Your task to perform on an android device: View the shopping cart on amazon. Add razer huntsman to the cart on amazon Image 0: 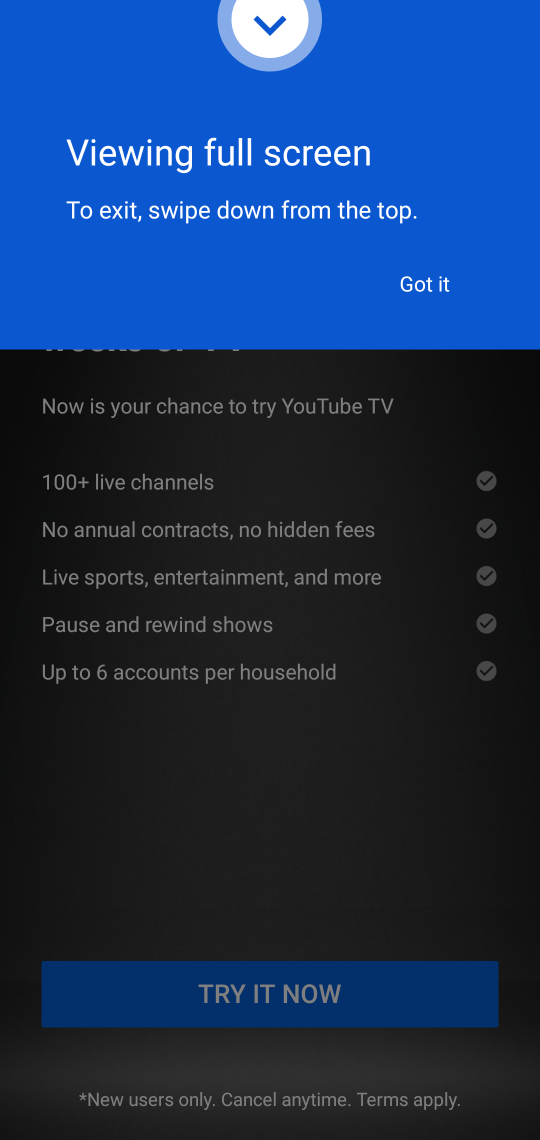
Step 0: press home button
Your task to perform on an android device: View the shopping cart on amazon. Add razer huntsman to the cart on amazon Image 1: 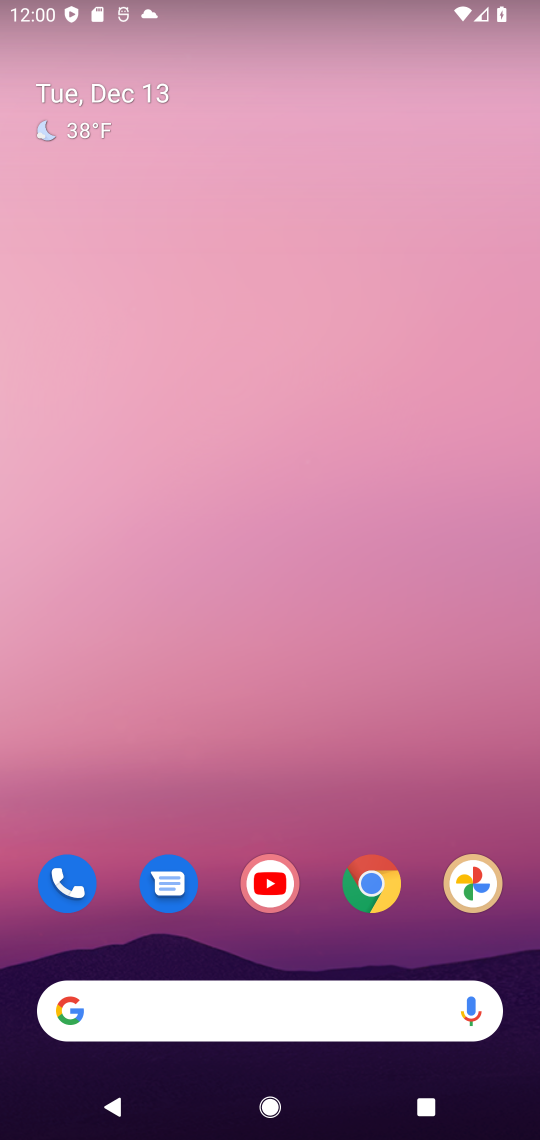
Step 1: click (267, 1030)
Your task to perform on an android device: View the shopping cart on amazon. Add razer huntsman to the cart on amazon Image 2: 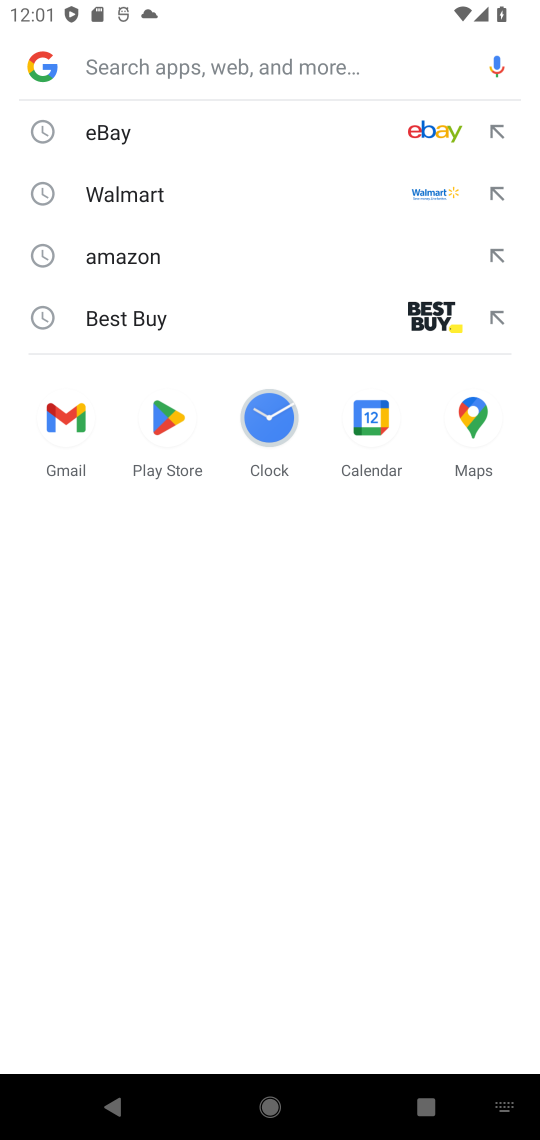
Step 2: click (144, 257)
Your task to perform on an android device: View the shopping cart on amazon. Add razer huntsman to the cart on amazon Image 3: 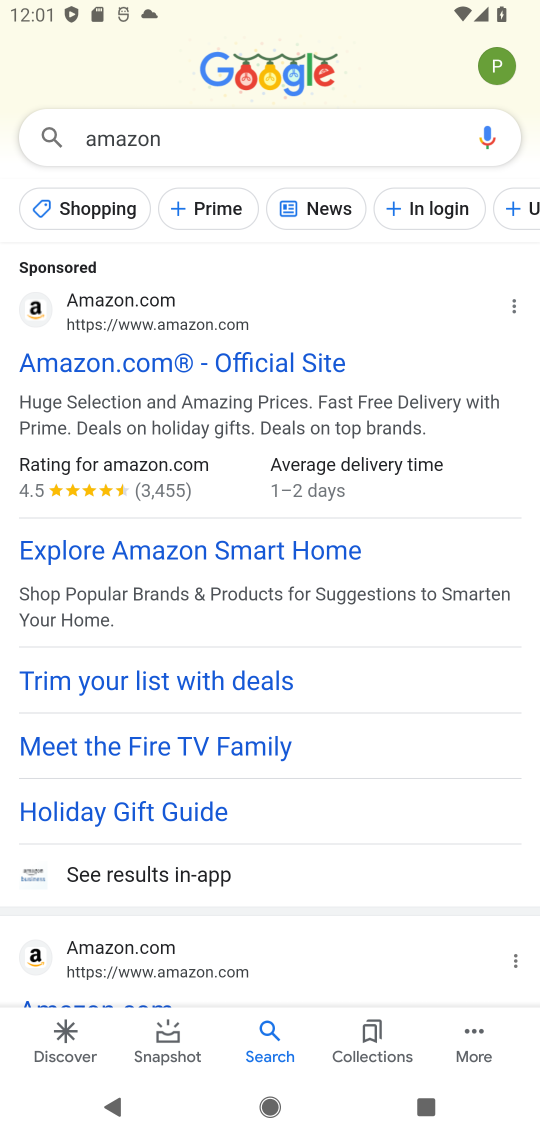
Step 3: drag from (208, 763) to (263, 297)
Your task to perform on an android device: View the shopping cart on amazon. Add razer huntsman to the cart on amazon Image 4: 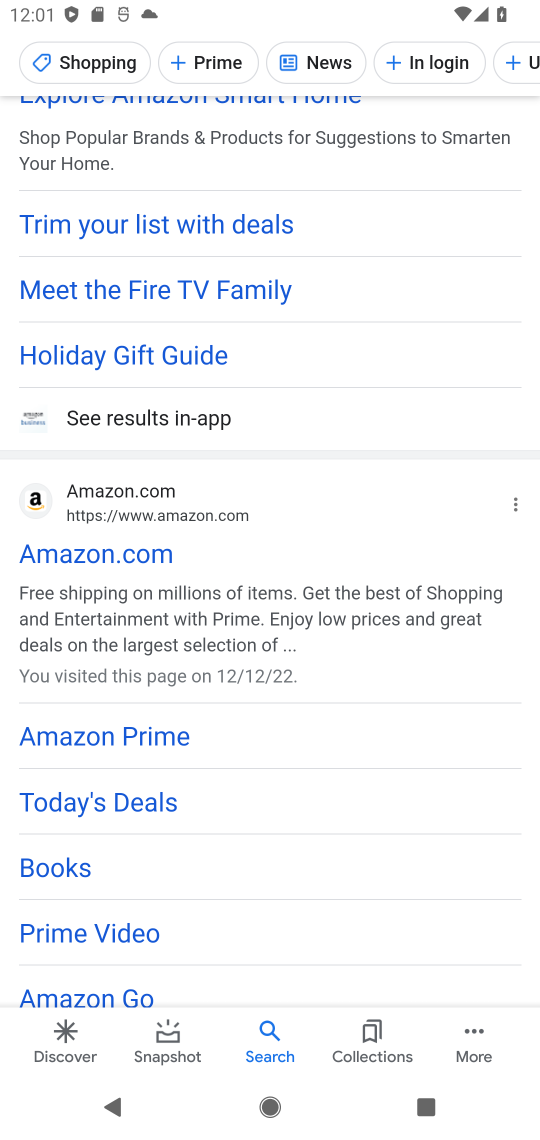
Step 4: click (81, 563)
Your task to perform on an android device: View the shopping cart on amazon. Add razer huntsman to the cart on amazon Image 5: 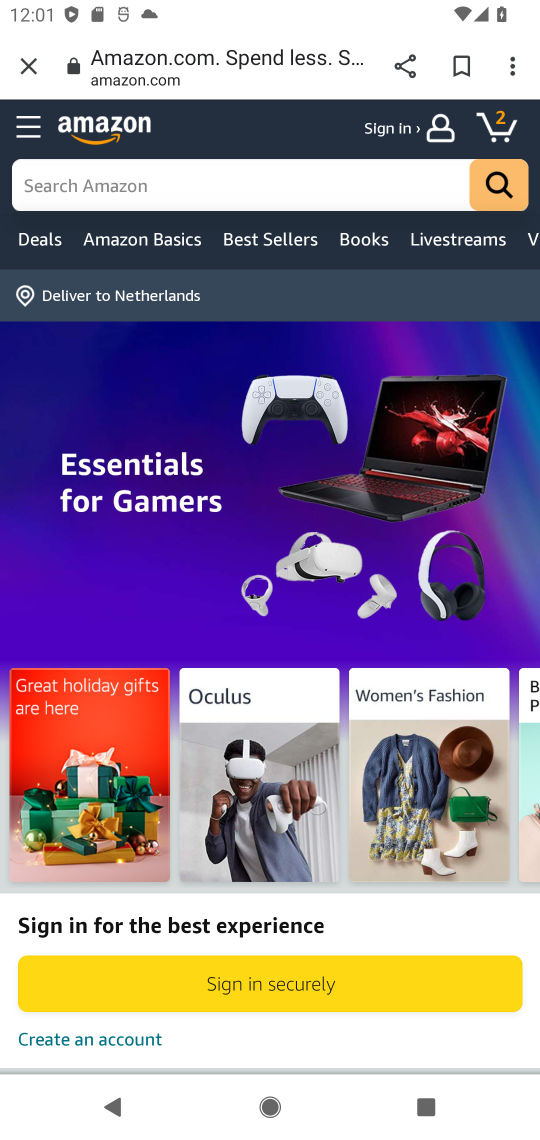
Step 5: click (494, 138)
Your task to perform on an android device: View the shopping cart on amazon. Add razer huntsman to the cart on amazon Image 6: 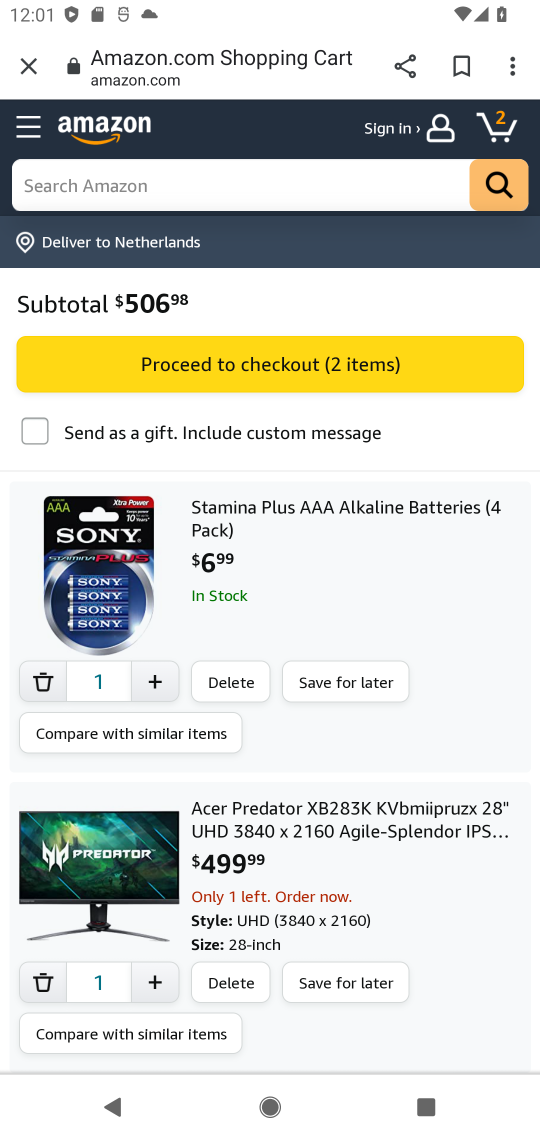
Step 6: click (245, 183)
Your task to perform on an android device: View the shopping cart on amazon. Add razer huntsman to the cart on amazon Image 7: 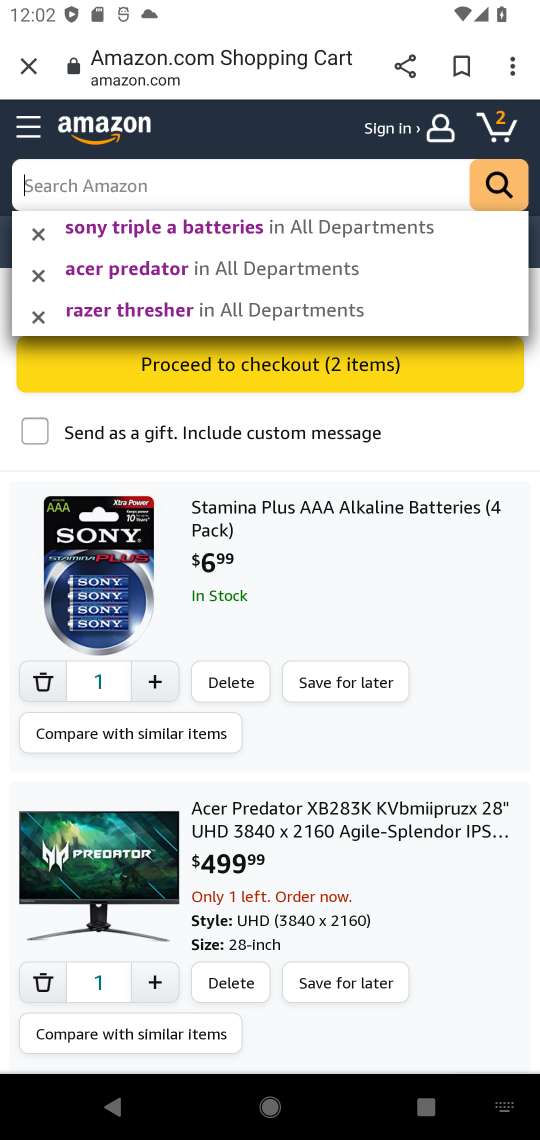
Step 7: type "razer huntsman"
Your task to perform on an android device: View the shopping cart on amazon. Add razer huntsman to the cart on amazon Image 8: 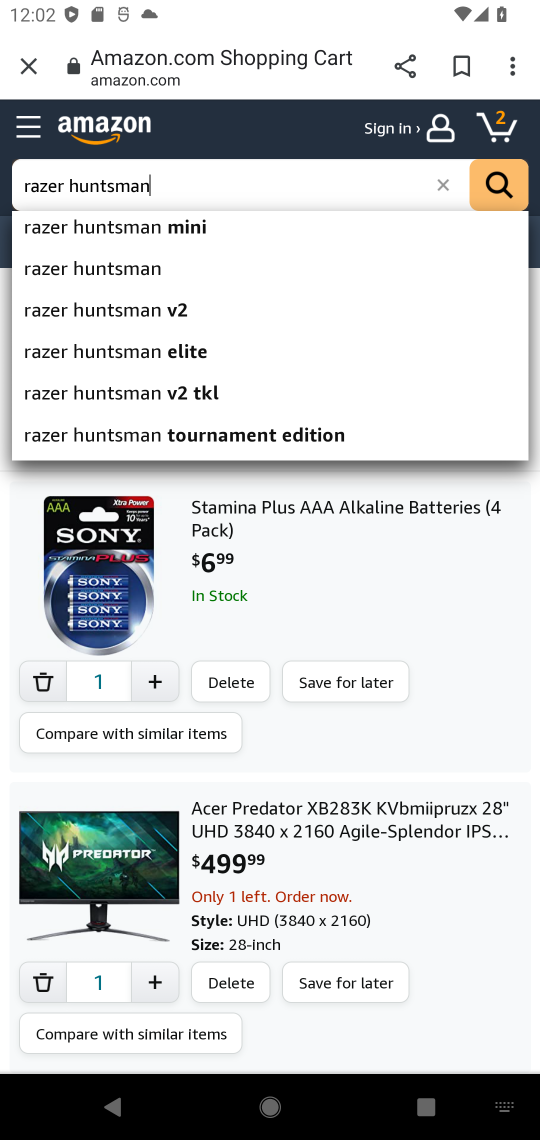
Step 8: click (137, 262)
Your task to perform on an android device: View the shopping cart on amazon. Add razer huntsman to the cart on amazon Image 9: 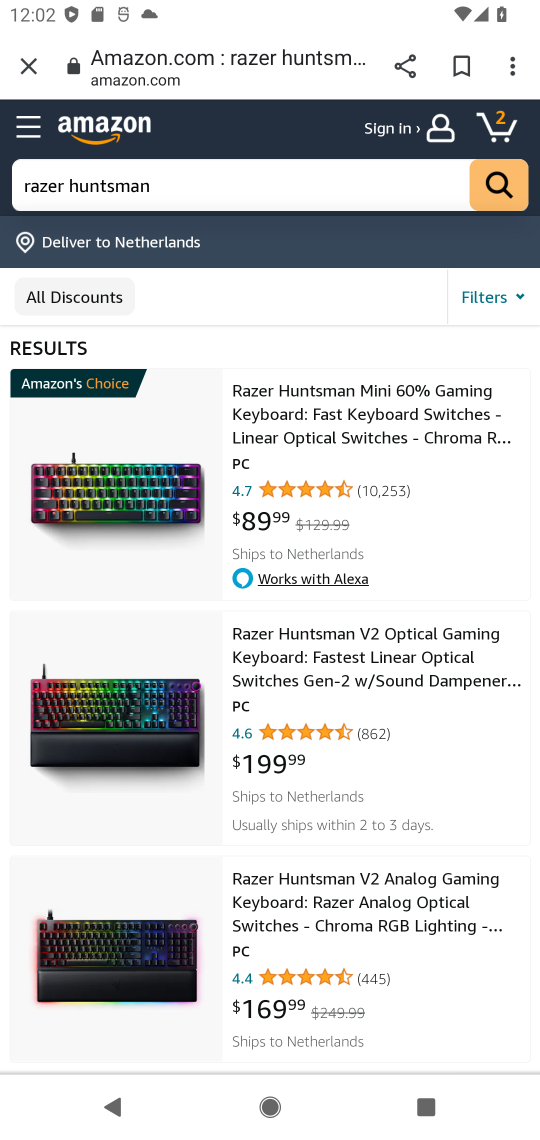
Step 9: click (257, 409)
Your task to perform on an android device: View the shopping cart on amazon. Add razer huntsman to the cart on amazon Image 10: 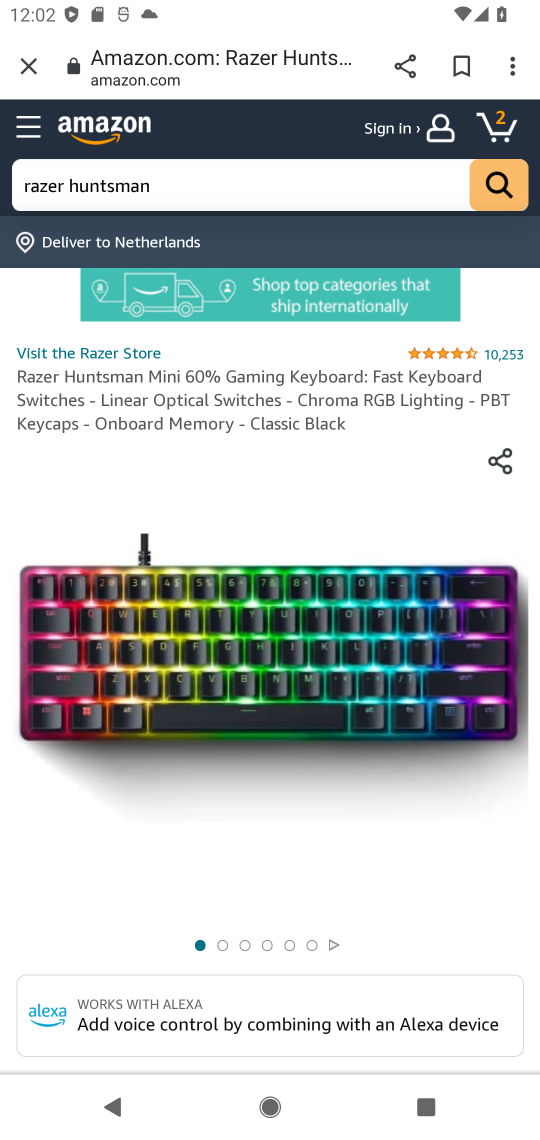
Step 10: drag from (300, 722) to (348, 513)
Your task to perform on an android device: View the shopping cart on amazon. Add razer huntsman to the cart on amazon Image 11: 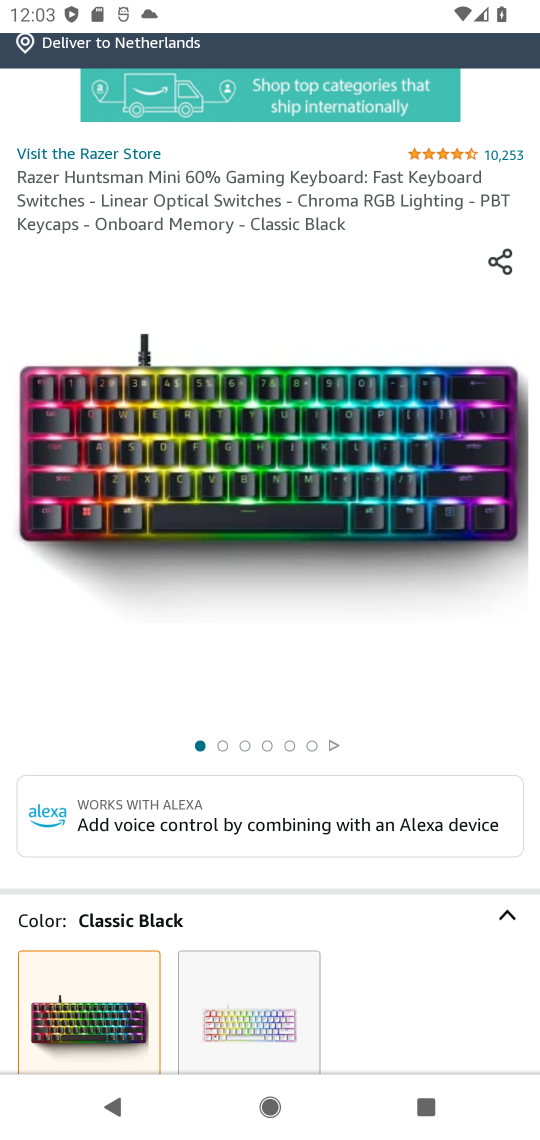
Step 11: click (367, 793)
Your task to perform on an android device: View the shopping cart on amazon. Add razer huntsman to the cart on amazon Image 12: 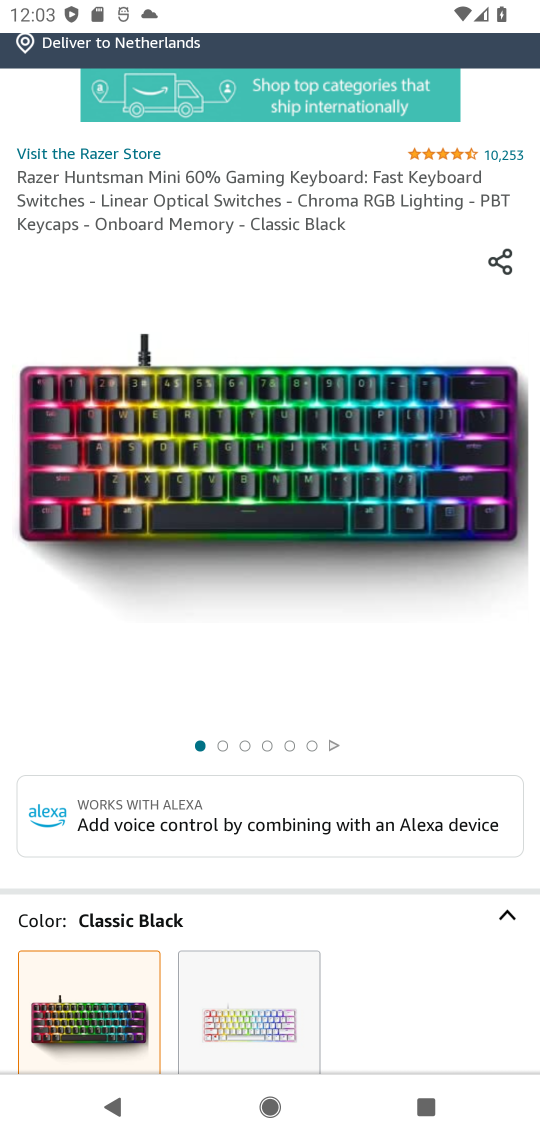
Step 12: drag from (400, 856) to (419, 717)
Your task to perform on an android device: View the shopping cart on amazon. Add razer huntsman to the cart on amazon Image 13: 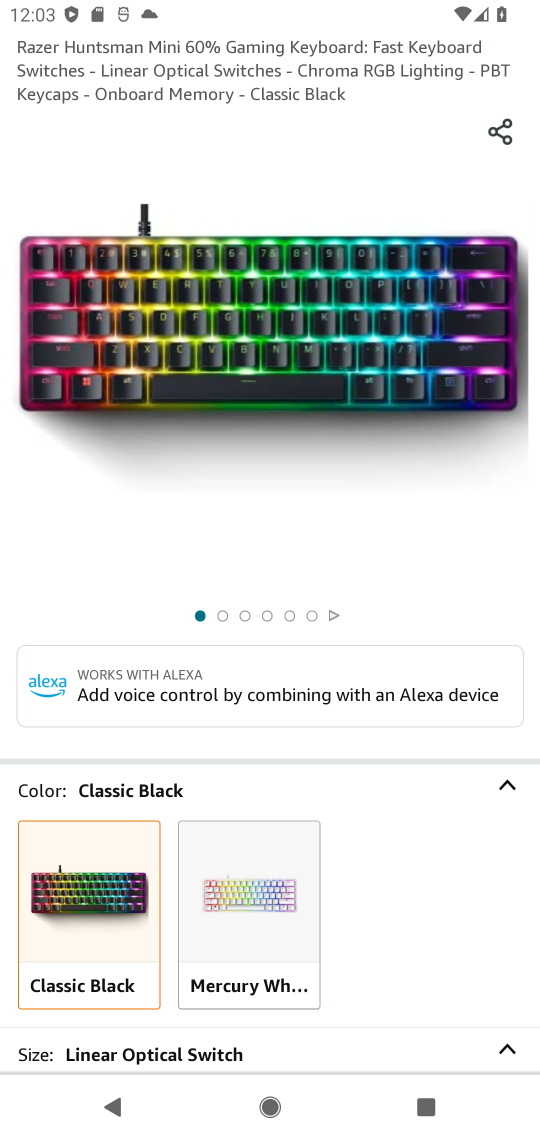
Step 13: drag from (424, 857) to (473, 617)
Your task to perform on an android device: View the shopping cart on amazon. Add razer huntsman to the cart on amazon Image 14: 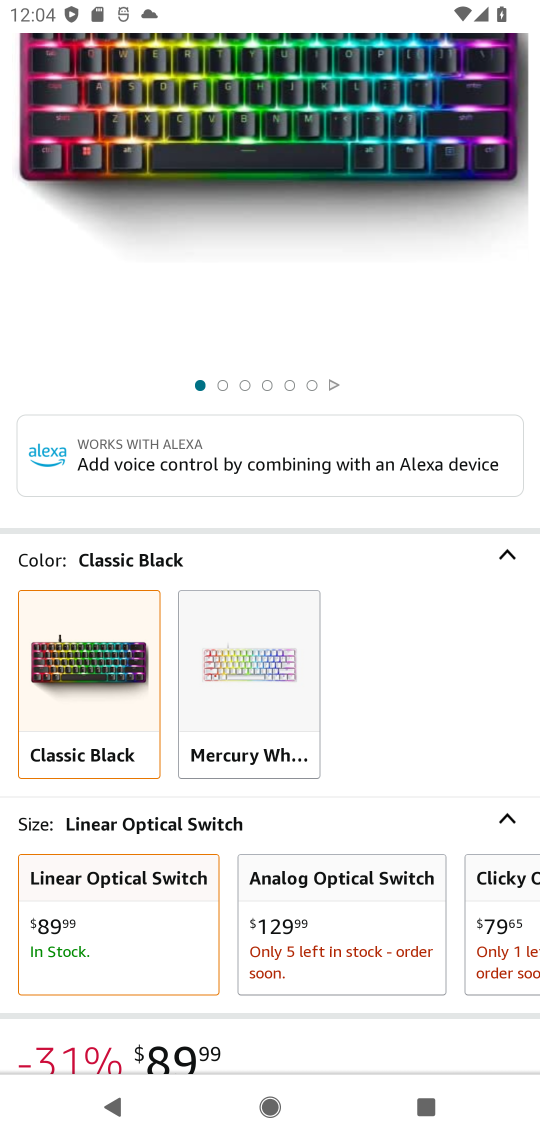
Step 14: drag from (473, 561) to (458, 261)
Your task to perform on an android device: View the shopping cart on amazon. Add razer huntsman to the cart on amazon Image 15: 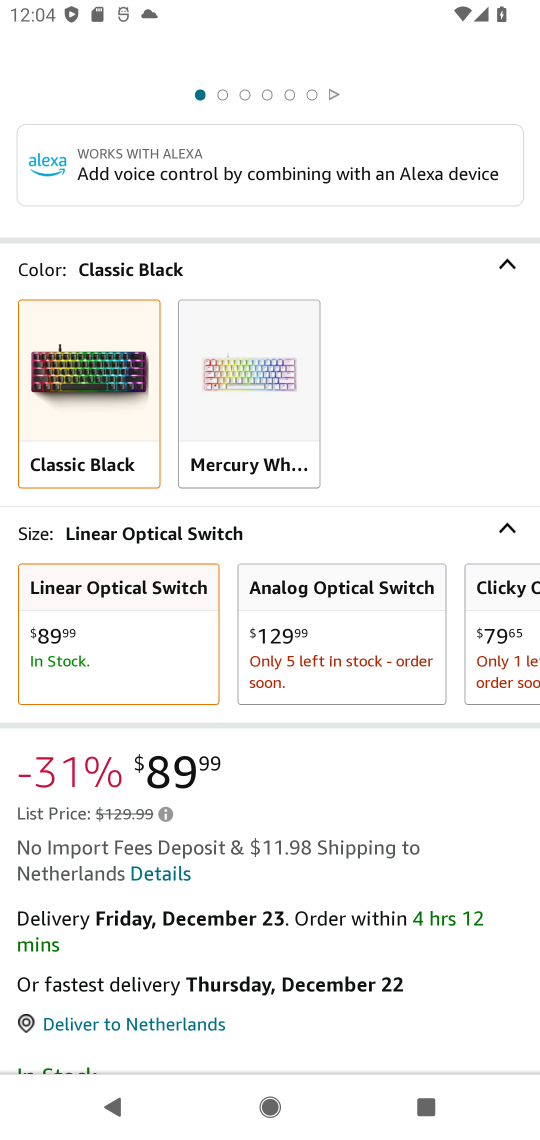
Step 15: drag from (267, 932) to (351, 340)
Your task to perform on an android device: View the shopping cart on amazon. Add razer huntsman to the cart on amazon Image 16: 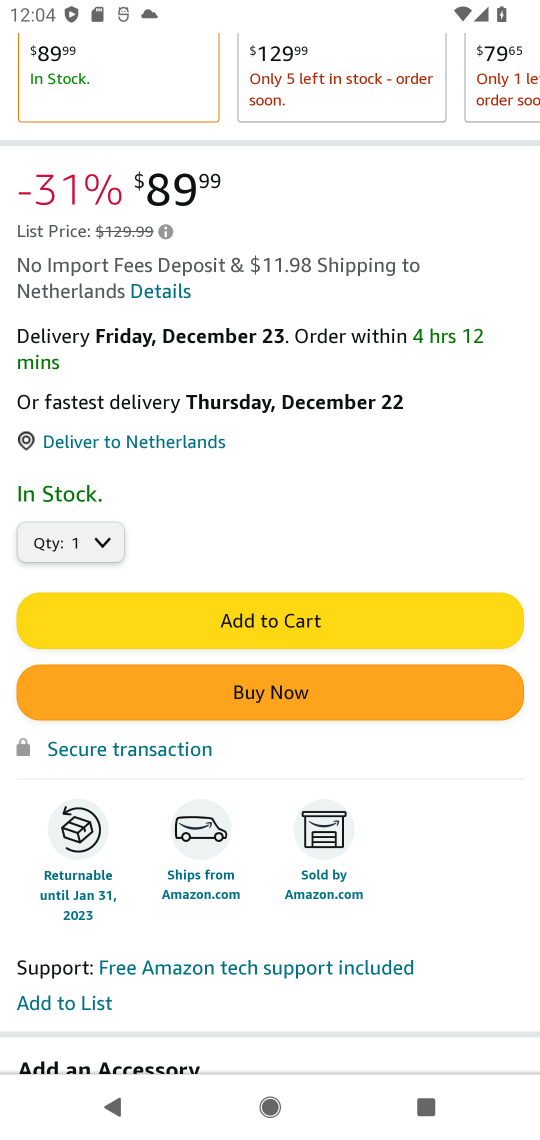
Step 16: drag from (396, 356) to (386, 749)
Your task to perform on an android device: View the shopping cart on amazon. Add razer huntsman to the cart on amazon Image 17: 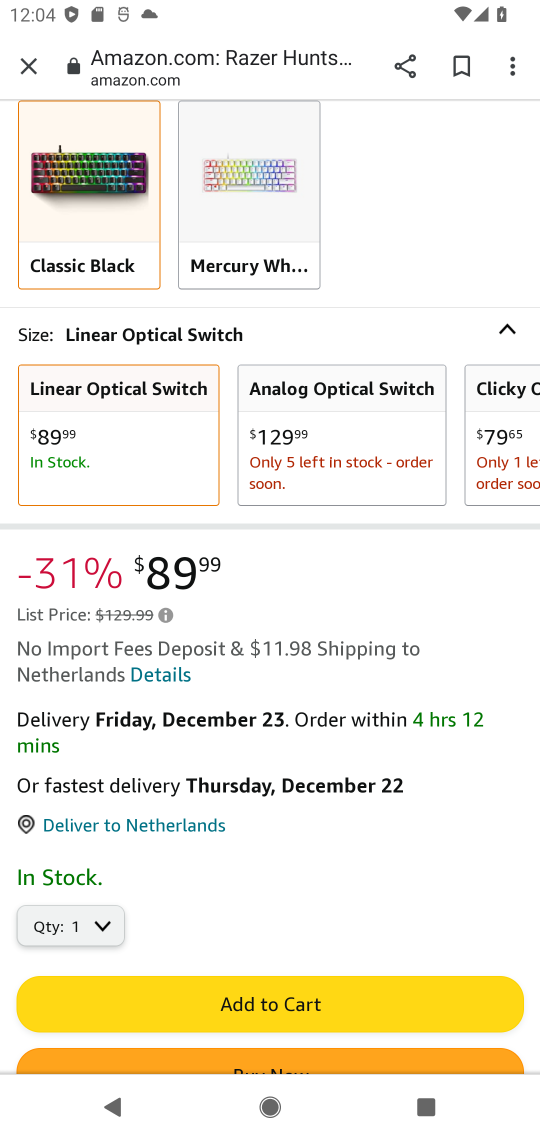
Step 17: drag from (394, 409) to (380, 698)
Your task to perform on an android device: View the shopping cart on amazon. Add razer huntsman to the cart on amazon Image 18: 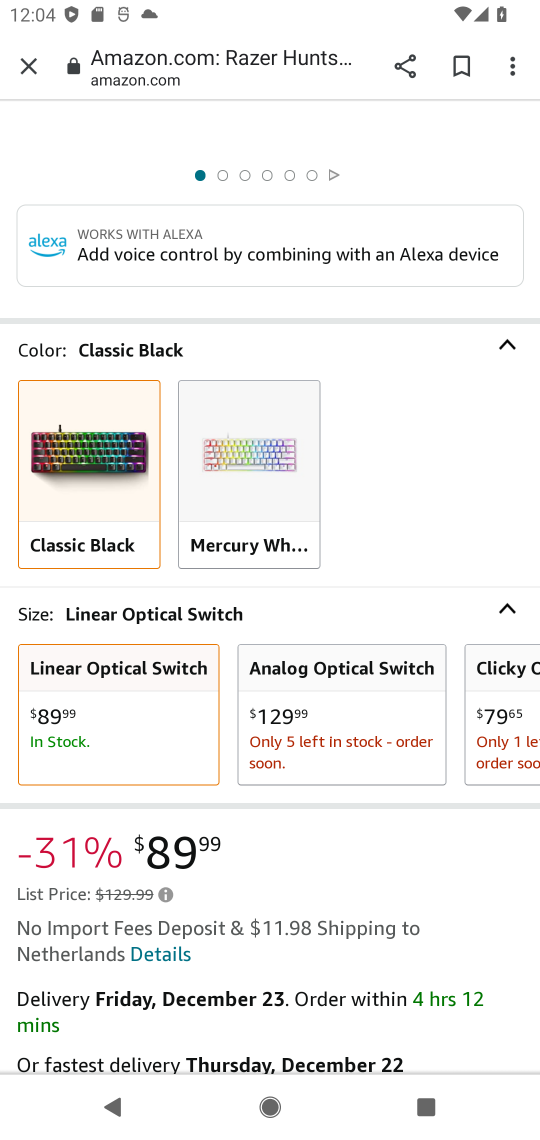
Step 18: drag from (450, 445) to (422, 712)
Your task to perform on an android device: View the shopping cart on amazon. Add razer huntsman to the cart on amazon Image 19: 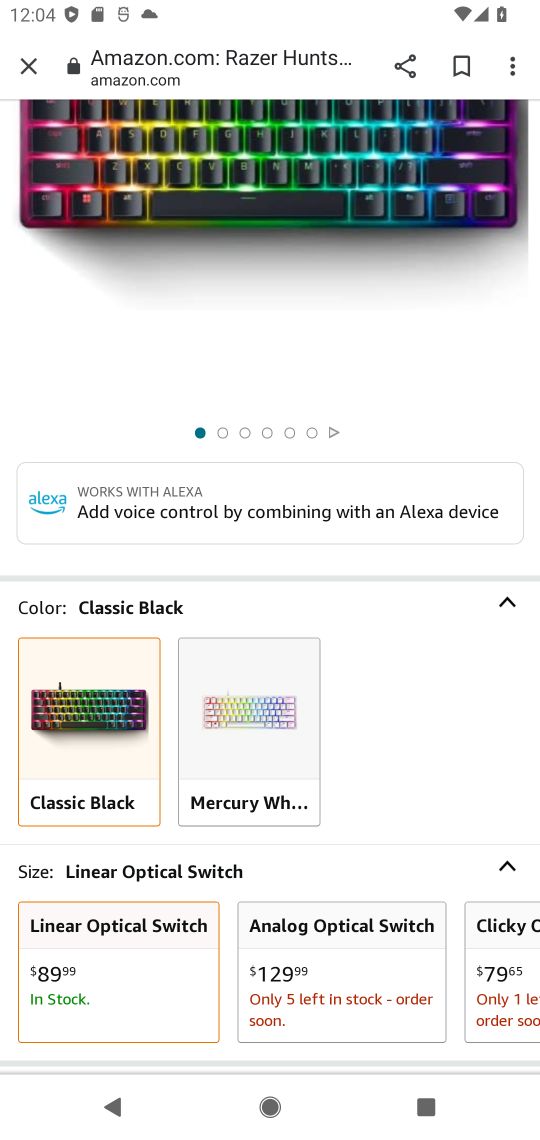
Step 19: drag from (433, 411) to (404, 763)
Your task to perform on an android device: View the shopping cart on amazon. Add razer huntsman to the cart on amazon Image 20: 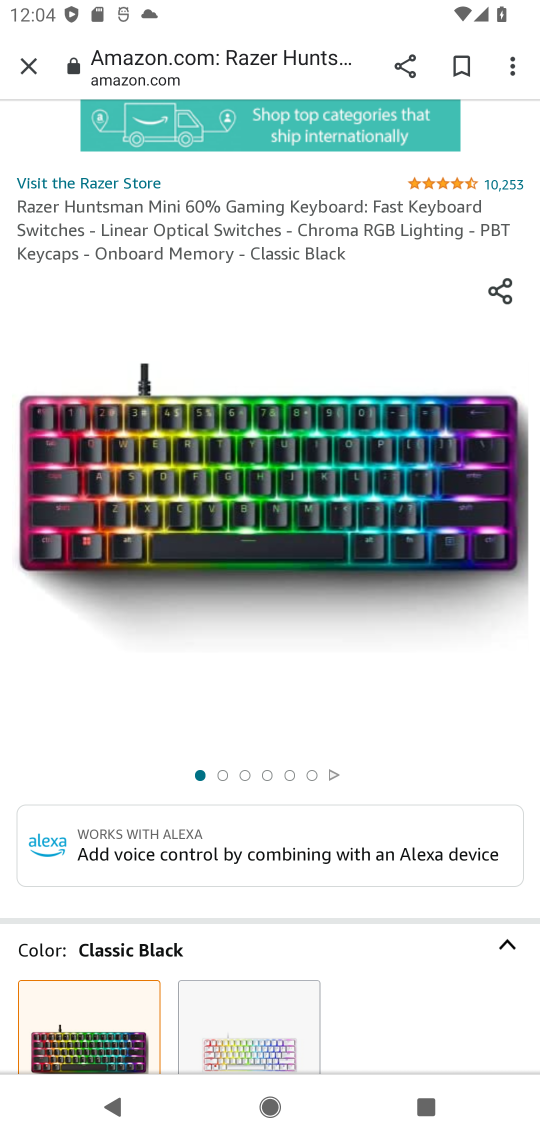
Step 20: drag from (441, 283) to (405, 781)
Your task to perform on an android device: View the shopping cart on amazon. Add razer huntsman to the cart on amazon Image 21: 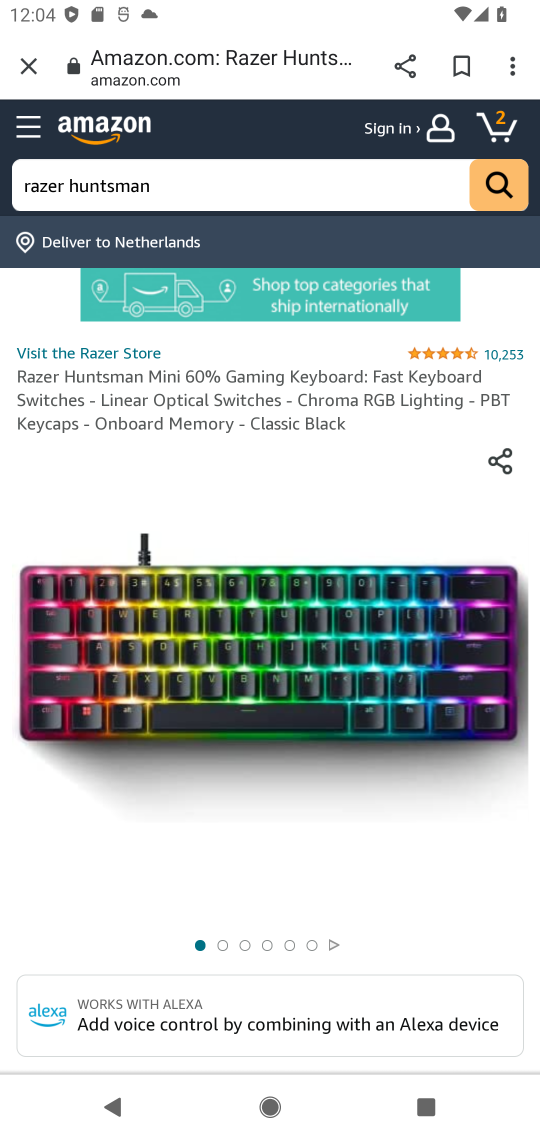
Step 21: click (503, 132)
Your task to perform on an android device: View the shopping cart on amazon. Add razer huntsman to the cart on amazon Image 22: 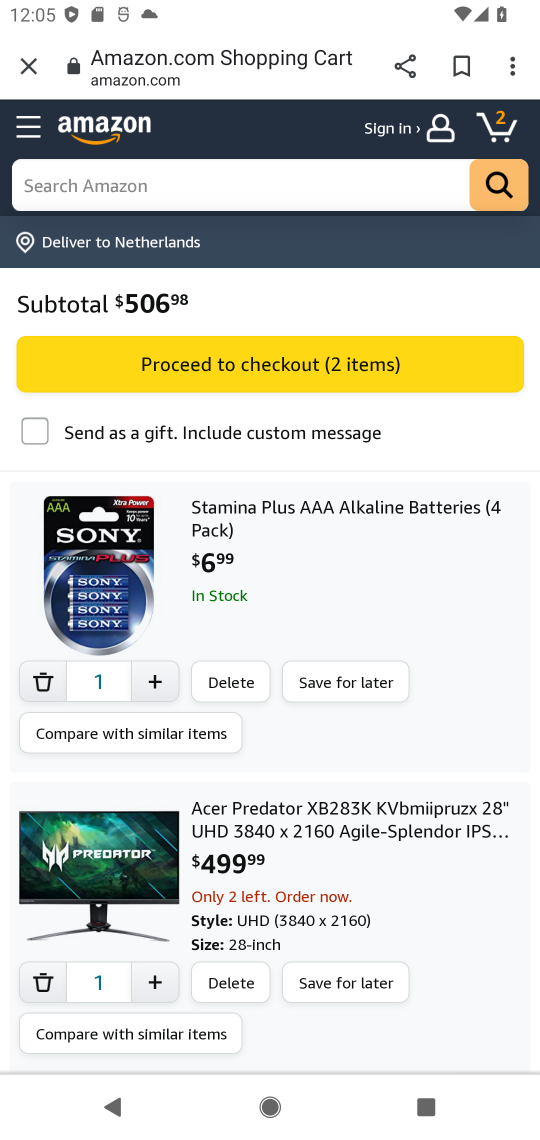
Step 22: drag from (385, 514) to (473, 305)
Your task to perform on an android device: View the shopping cart on amazon. Add razer huntsman to the cart on amazon Image 23: 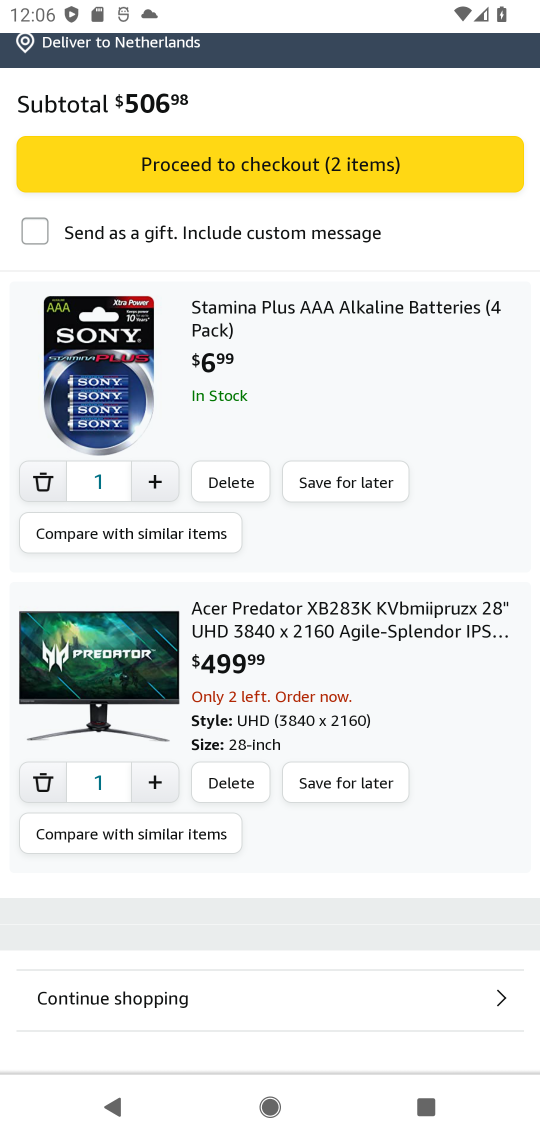
Step 23: drag from (367, 383) to (228, 1093)
Your task to perform on an android device: View the shopping cart on amazon. Add razer huntsman to the cart on amazon Image 24: 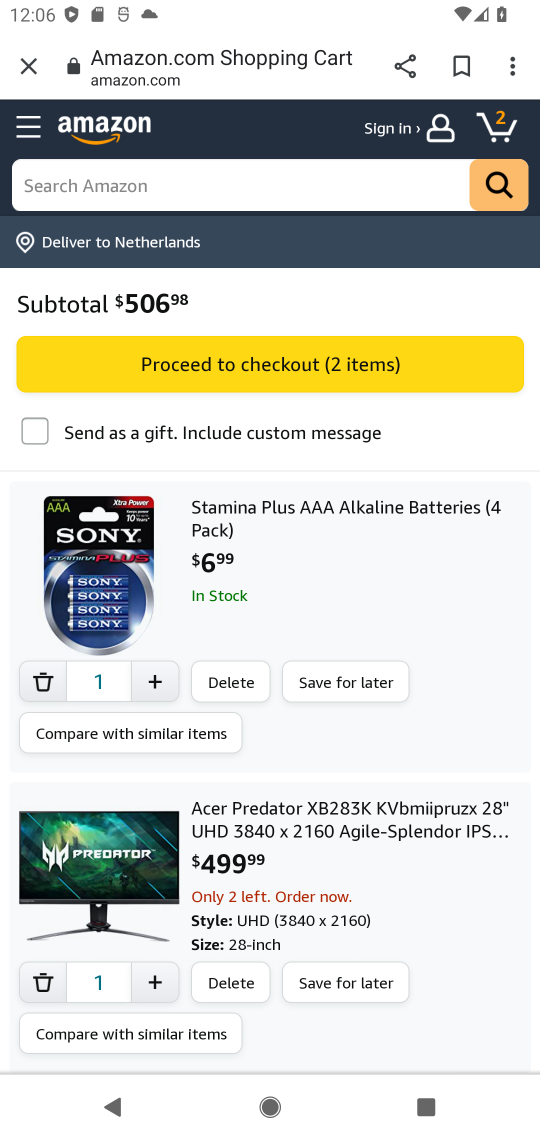
Step 24: click (322, 186)
Your task to perform on an android device: View the shopping cart on amazon. Add razer huntsman to the cart on amazon Image 25: 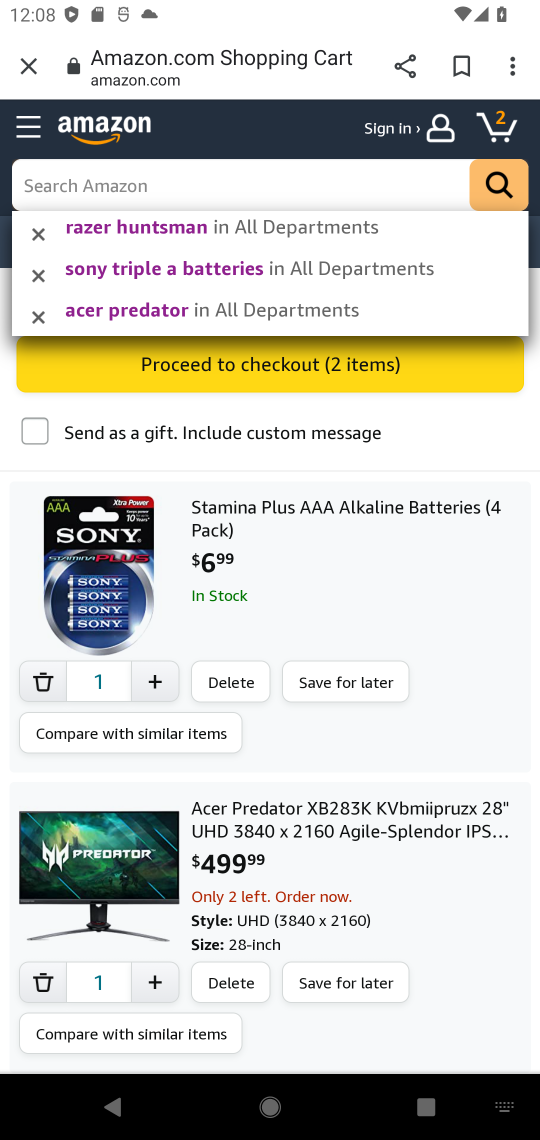
Step 25: type "razer huntsman"
Your task to perform on an android device: View the shopping cart on amazon. Add razer huntsman to the cart on amazon Image 26: 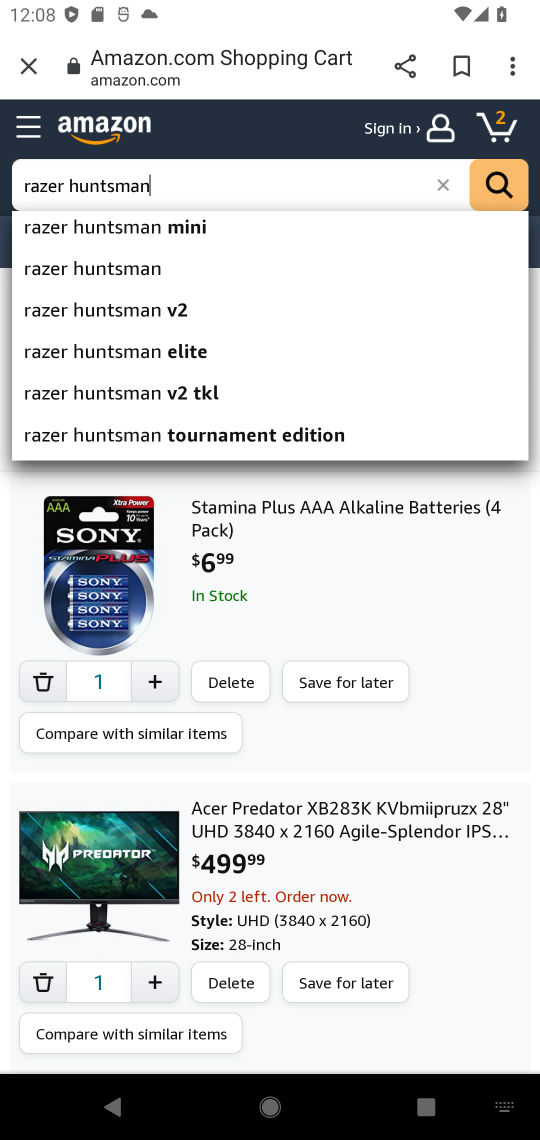
Step 26: click (104, 275)
Your task to perform on an android device: View the shopping cart on amazon. Add razer huntsman to the cart on amazon Image 27: 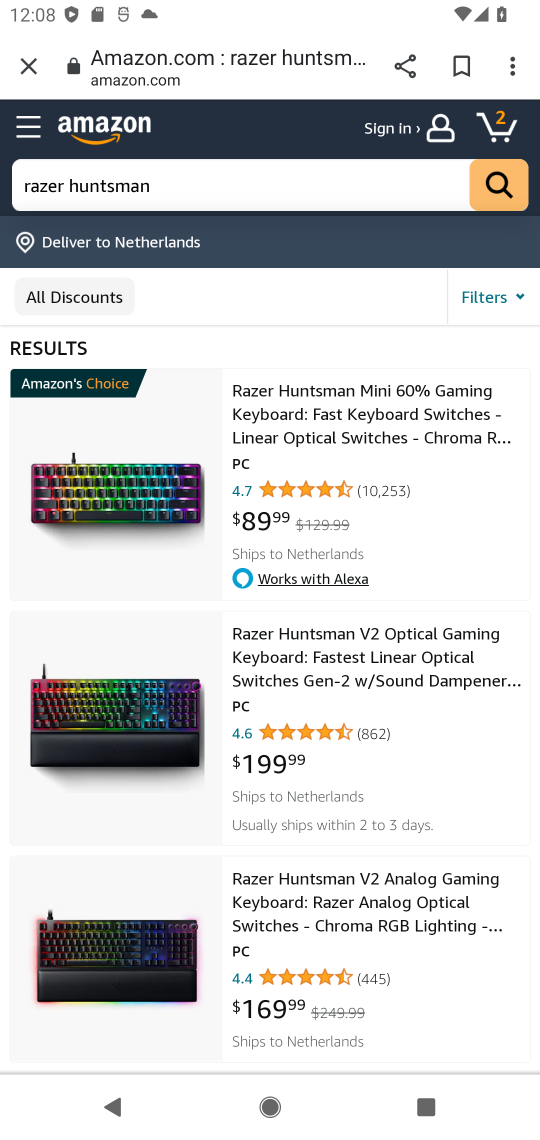
Step 27: click (291, 438)
Your task to perform on an android device: View the shopping cart on amazon. Add razer huntsman to the cart on amazon Image 28: 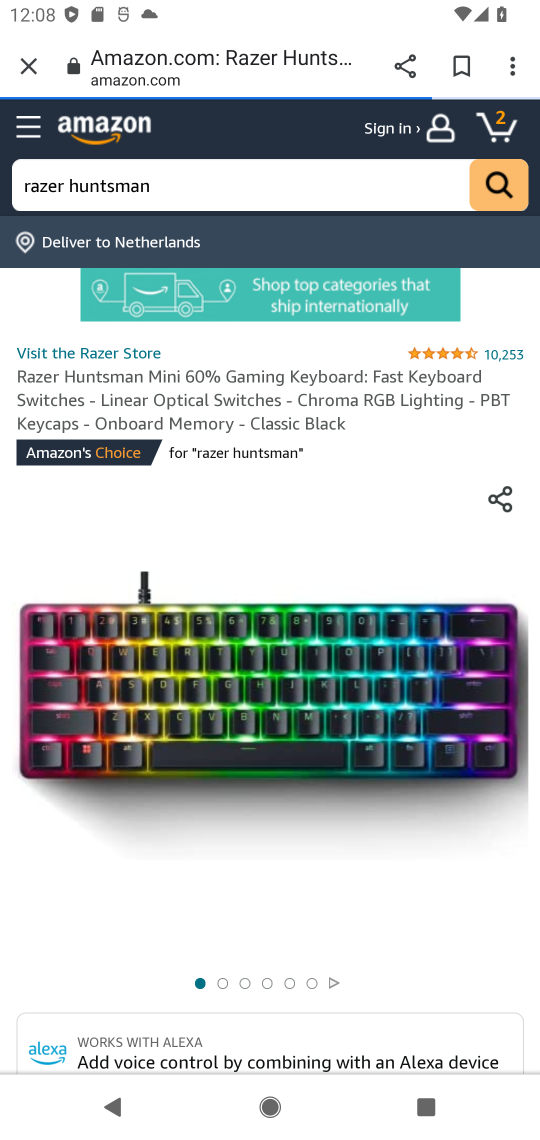
Step 28: drag from (249, 806) to (266, 641)
Your task to perform on an android device: View the shopping cart on amazon. Add razer huntsman to the cart on amazon Image 29: 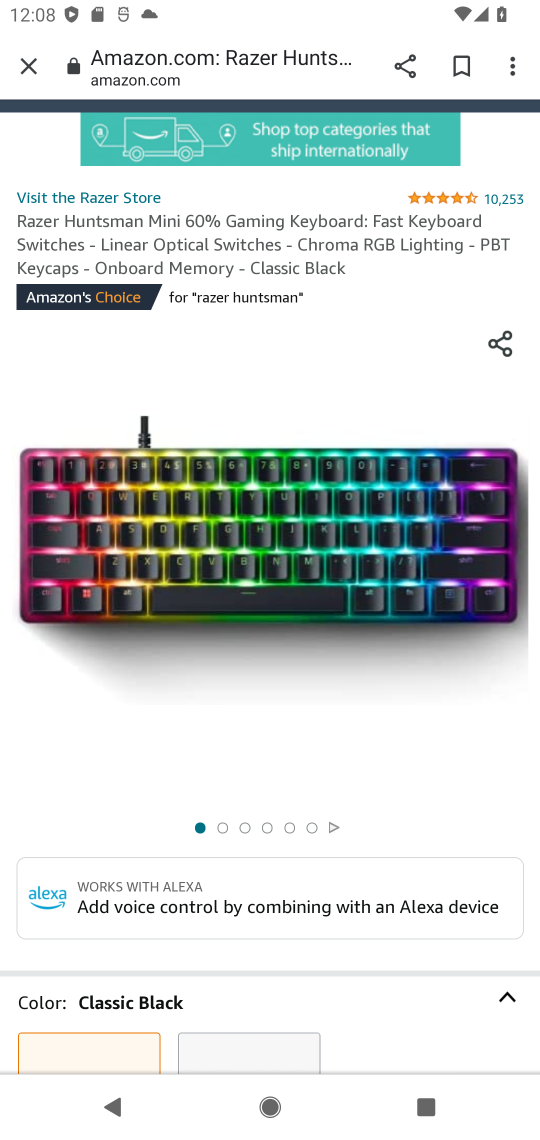
Step 29: drag from (238, 940) to (254, 630)
Your task to perform on an android device: View the shopping cart on amazon. Add razer huntsman to the cart on amazon Image 30: 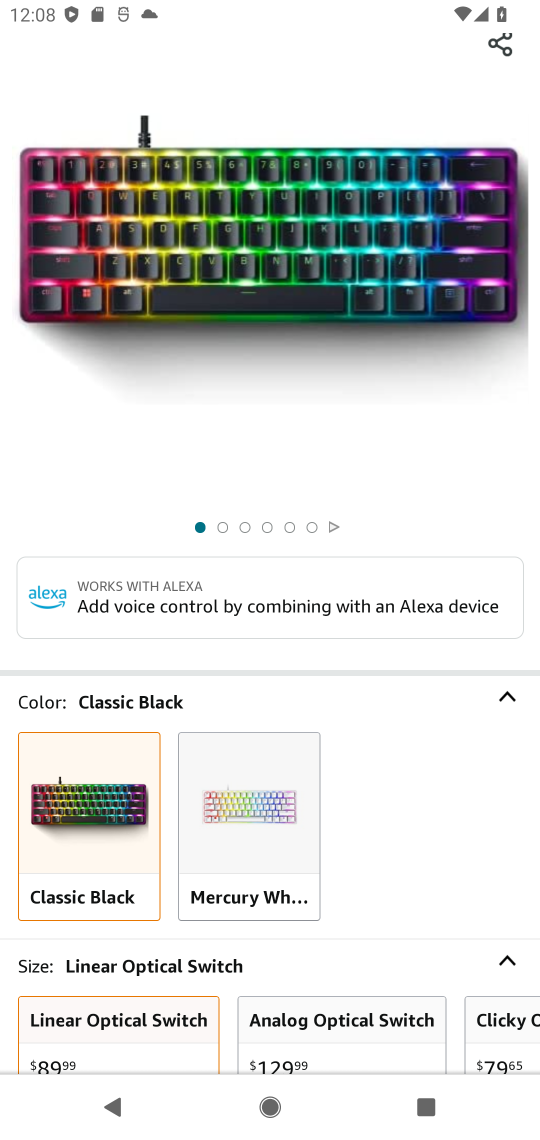
Step 30: click (359, 406)
Your task to perform on an android device: View the shopping cart on amazon. Add razer huntsman to the cart on amazon Image 31: 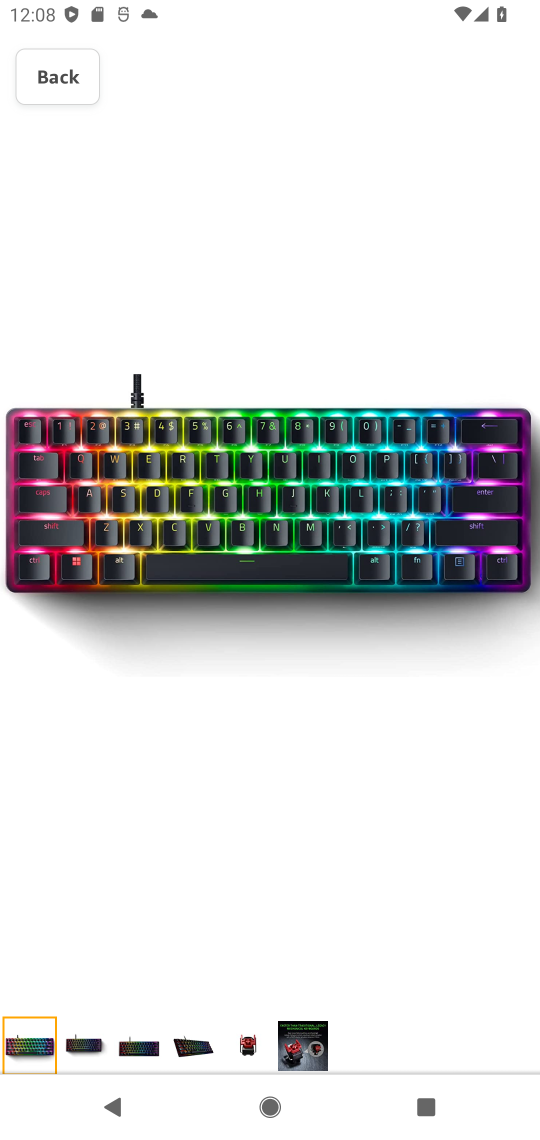
Step 31: click (26, 60)
Your task to perform on an android device: View the shopping cart on amazon. Add razer huntsman to the cart on amazon Image 32: 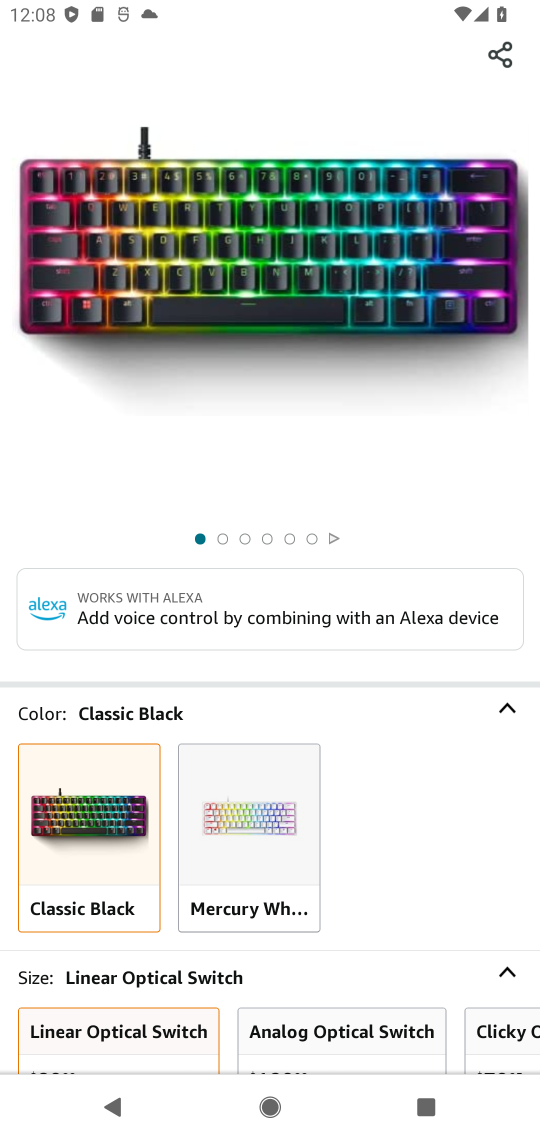
Step 32: drag from (350, 392) to (362, 306)
Your task to perform on an android device: View the shopping cart on amazon. Add razer huntsman to the cart on amazon Image 33: 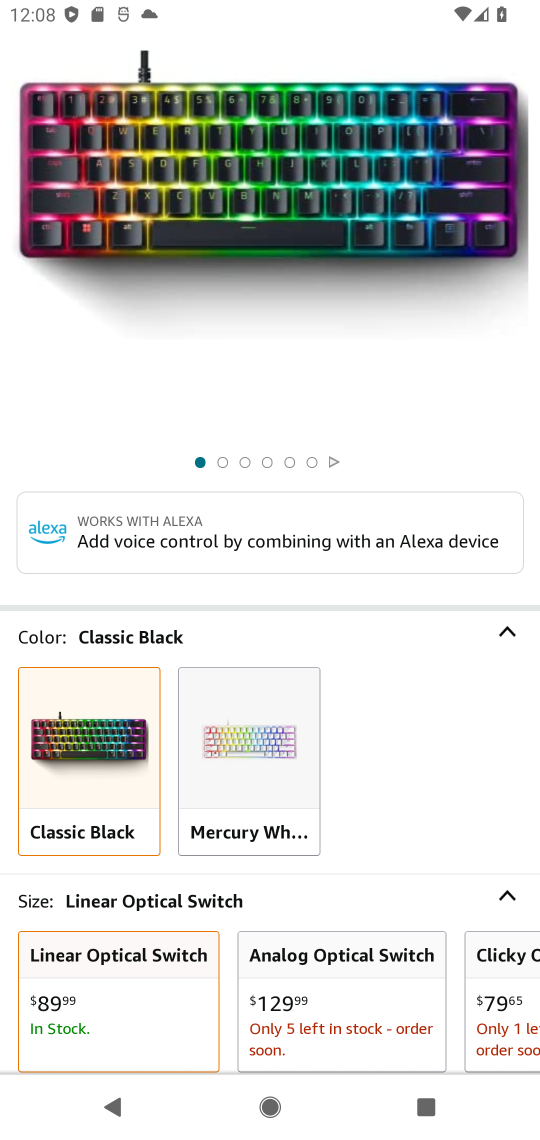
Step 33: drag from (452, 802) to (438, 372)
Your task to perform on an android device: View the shopping cart on amazon. Add razer huntsman to the cart on amazon Image 34: 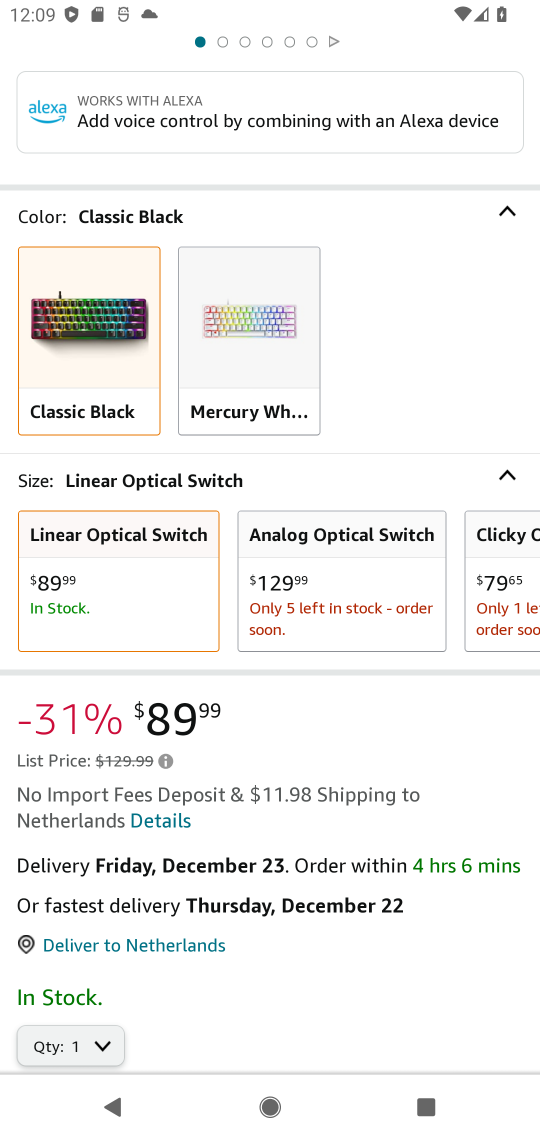
Step 34: drag from (291, 1000) to (386, 387)
Your task to perform on an android device: View the shopping cart on amazon. Add razer huntsman to the cart on amazon Image 35: 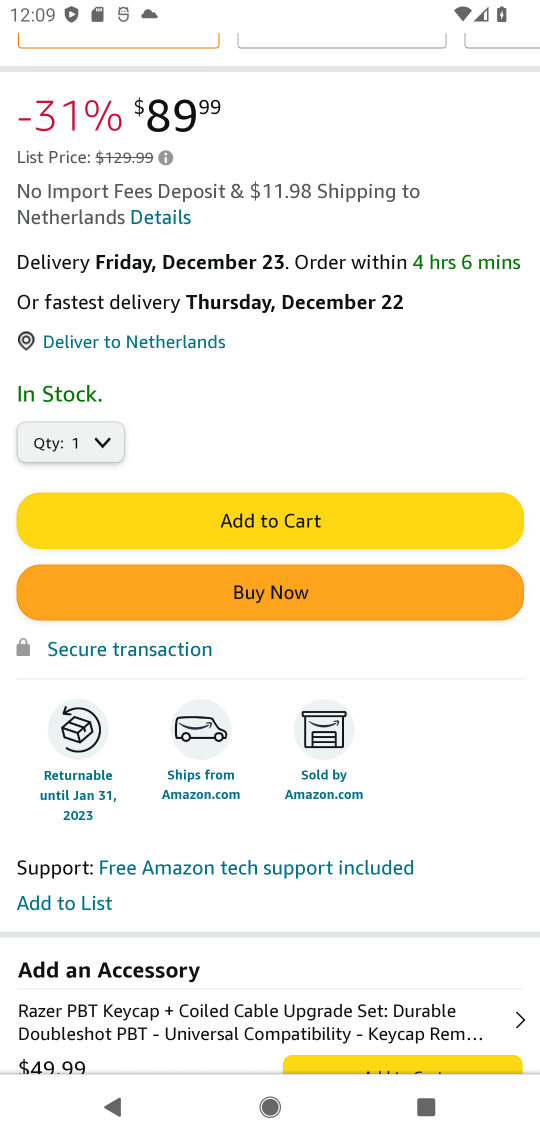
Step 35: click (263, 512)
Your task to perform on an android device: View the shopping cart on amazon. Add razer huntsman to the cart on amazon Image 36: 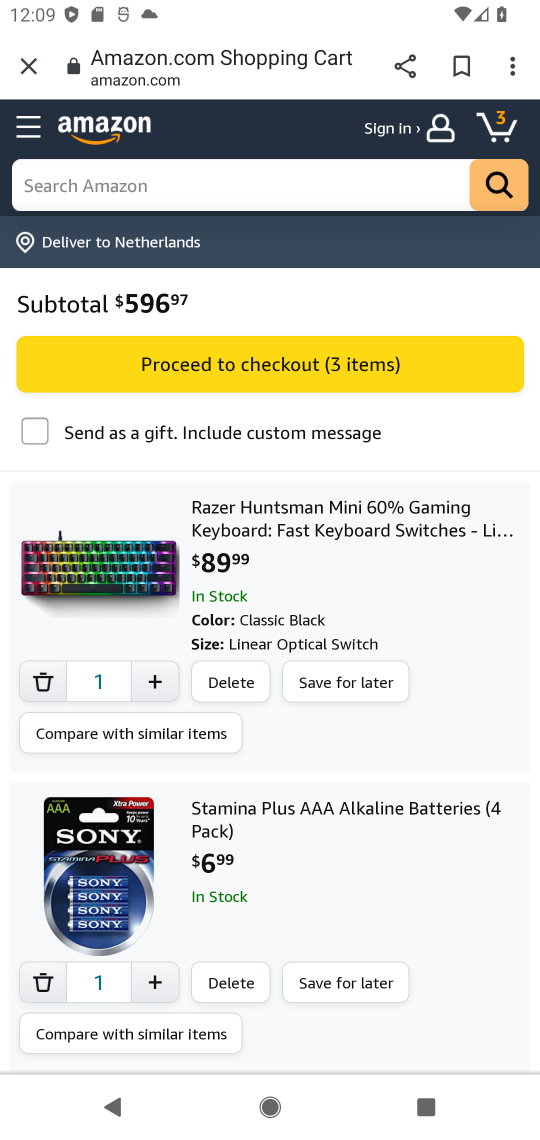
Step 36: task complete